Your task to perform on an android device: turn off improve location accuracy Image 0: 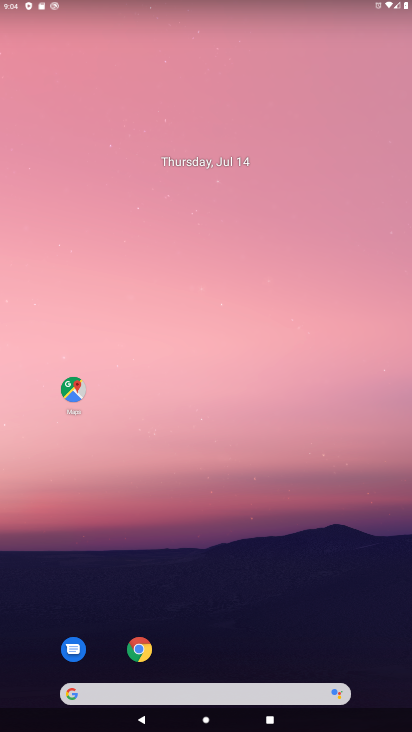
Step 0: drag from (184, 650) to (335, 0)
Your task to perform on an android device: turn off improve location accuracy Image 1: 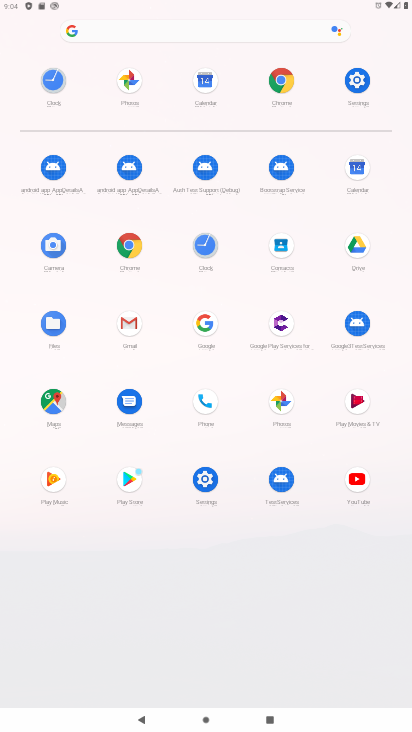
Step 1: click (384, 73)
Your task to perform on an android device: turn off improve location accuracy Image 2: 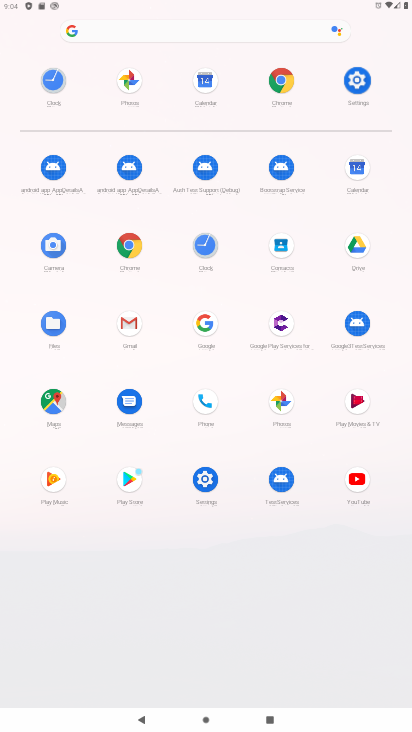
Step 2: drag from (281, 102) to (409, 70)
Your task to perform on an android device: turn off improve location accuracy Image 3: 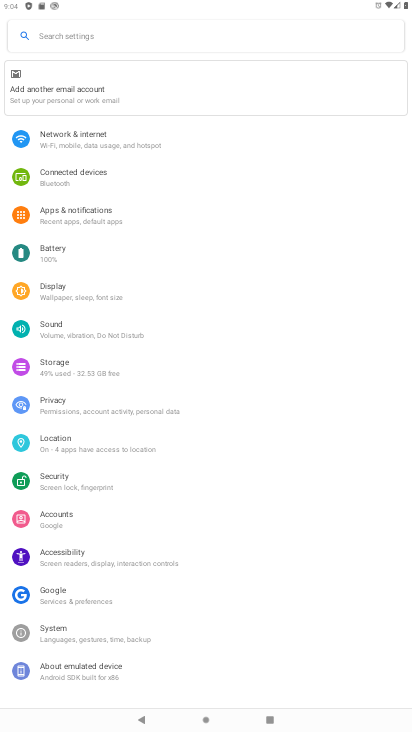
Step 3: click (85, 438)
Your task to perform on an android device: turn off improve location accuracy Image 4: 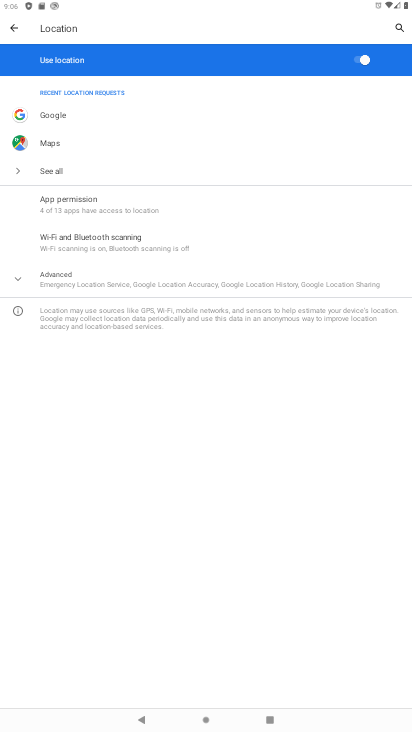
Step 4: click (210, 286)
Your task to perform on an android device: turn off improve location accuracy Image 5: 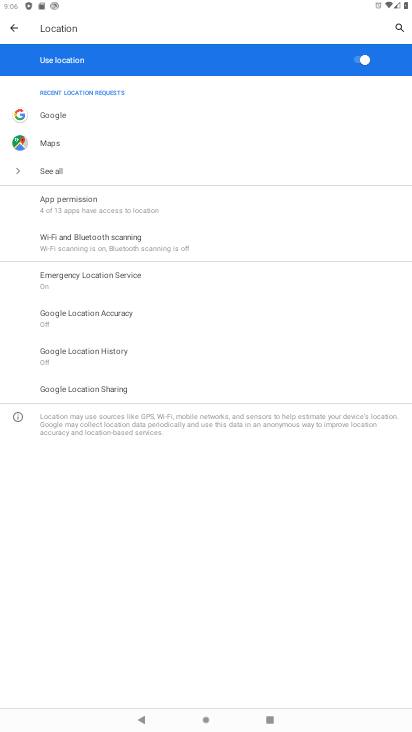
Step 5: click (39, 313)
Your task to perform on an android device: turn off improve location accuracy Image 6: 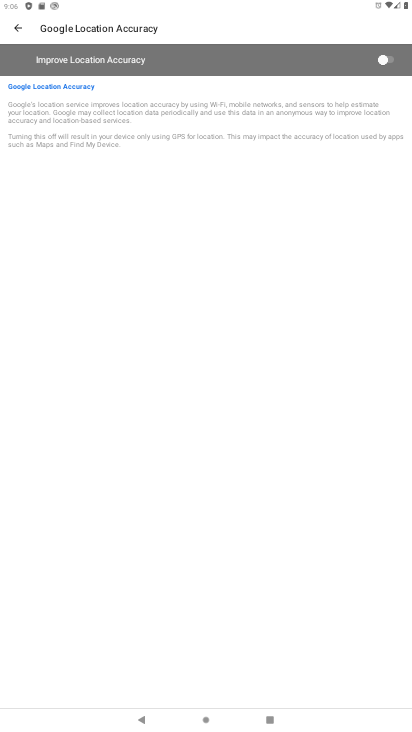
Step 6: task complete